Your task to perform on an android device: Go to settings Image 0: 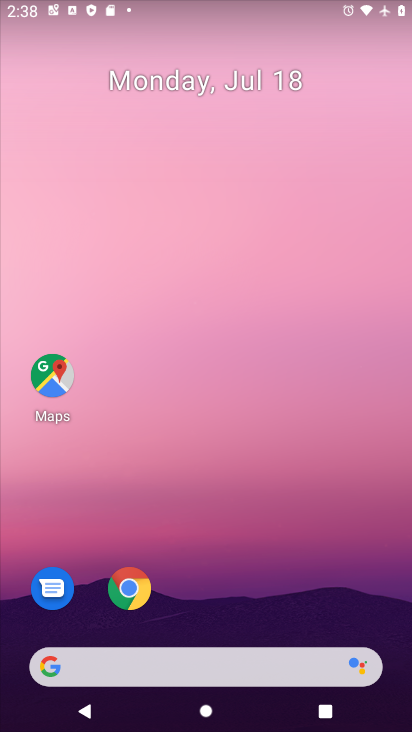
Step 0: drag from (209, 598) to (239, 179)
Your task to perform on an android device: Go to settings Image 1: 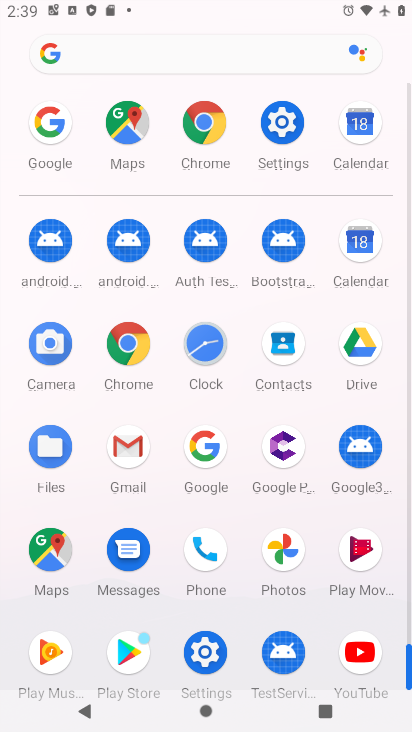
Step 1: click (292, 125)
Your task to perform on an android device: Go to settings Image 2: 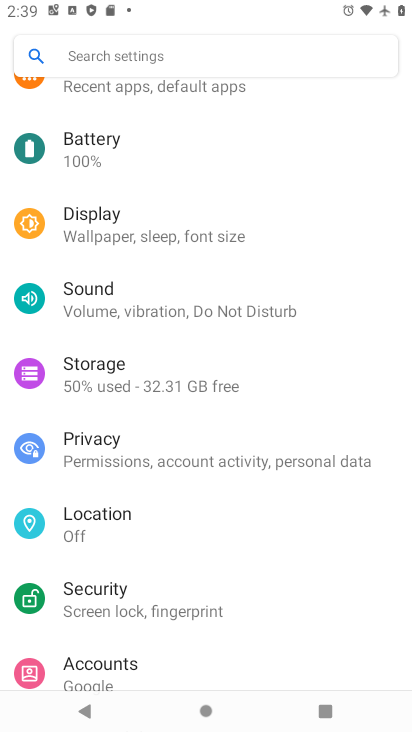
Step 2: task complete